Your task to perform on an android device: change notifications settings Image 0: 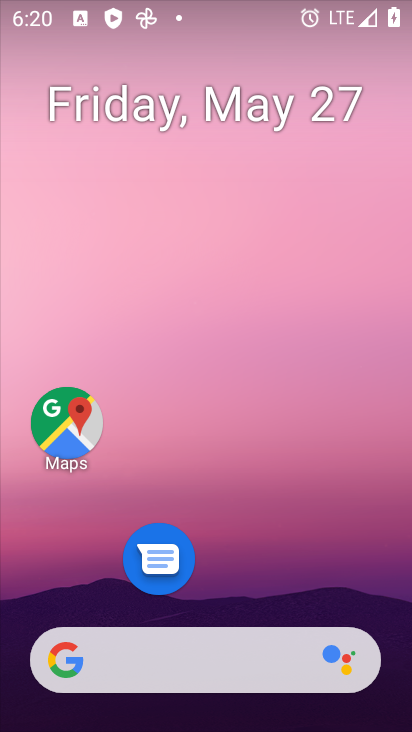
Step 0: drag from (196, 666) to (283, 13)
Your task to perform on an android device: change notifications settings Image 1: 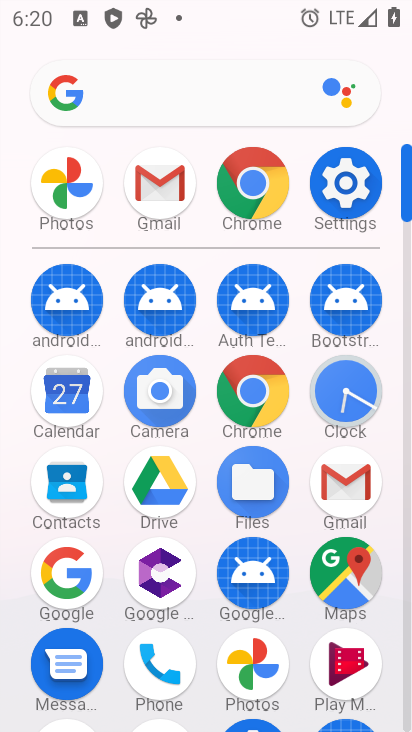
Step 1: click (357, 202)
Your task to perform on an android device: change notifications settings Image 2: 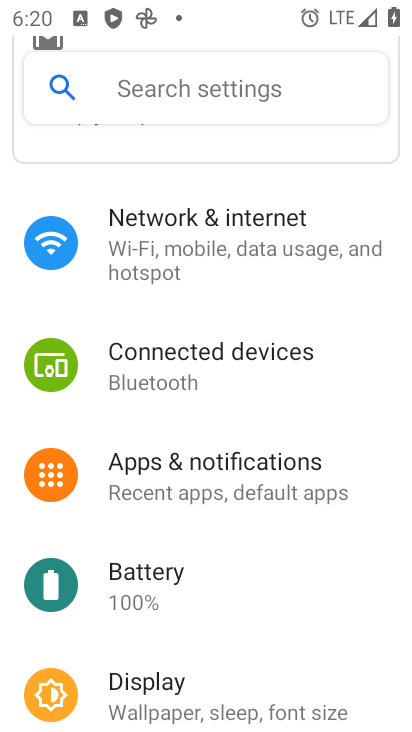
Step 2: click (230, 475)
Your task to perform on an android device: change notifications settings Image 3: 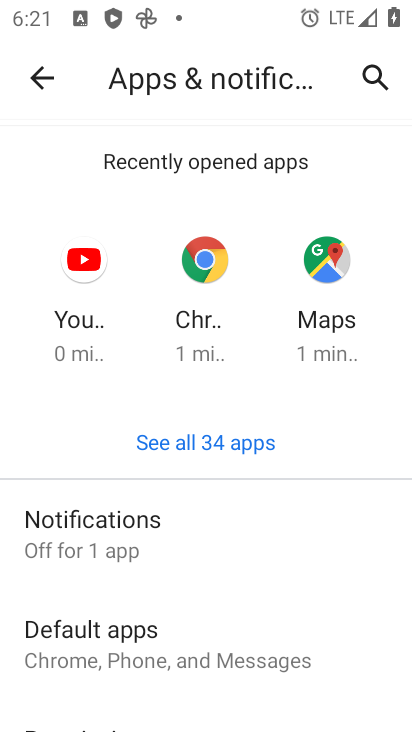
Step 3: click (180, 551)
Your task to perform on an android device: change notifications settings Image 4: 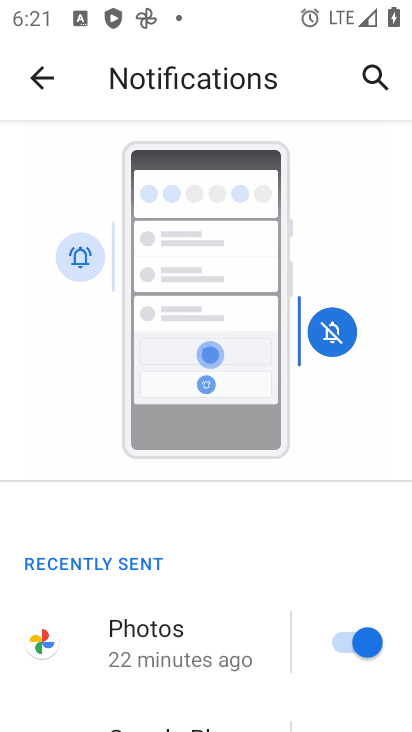
Step 4: drag from (213, 606) to (332, 69)
Your task to perform on an android device: change notifications settings Image 5: 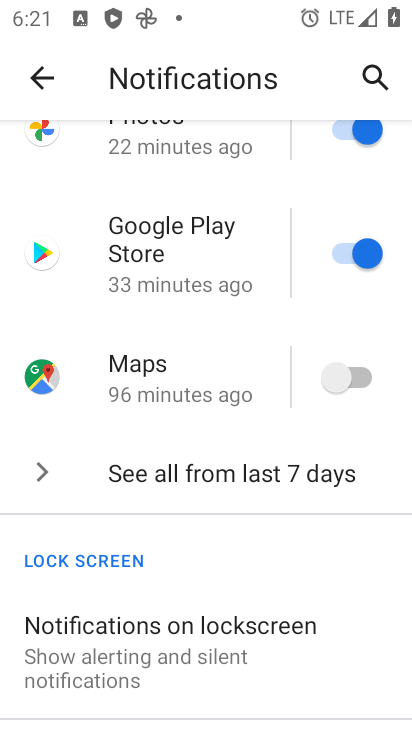
Step 5: click (340, 253)
Your task to perform on an android device: change notifications settings Image 6: 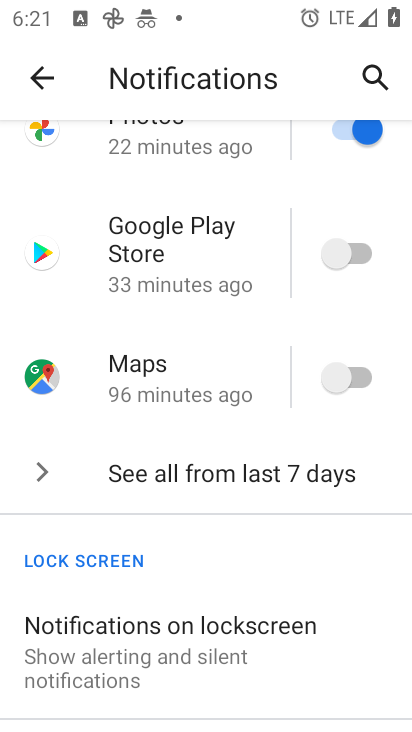
Step 6: task complete